Your task to perform on an android device: star an email in the gmail app Image 0: 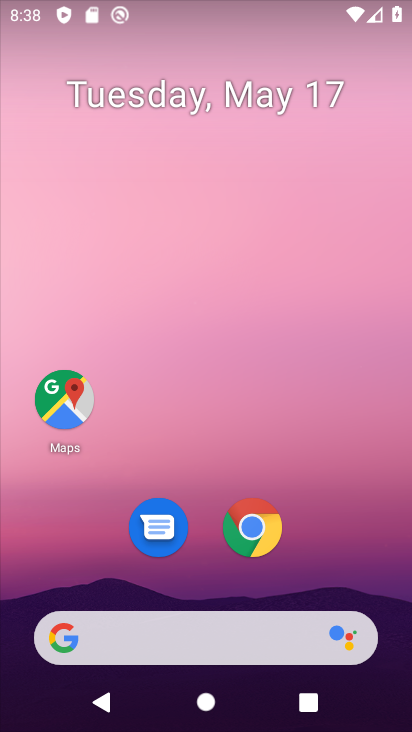
Step 0: drag from (341, 543) to (340, 6)
Your task to perform on an android device: star an email in the gmail app Image 1: 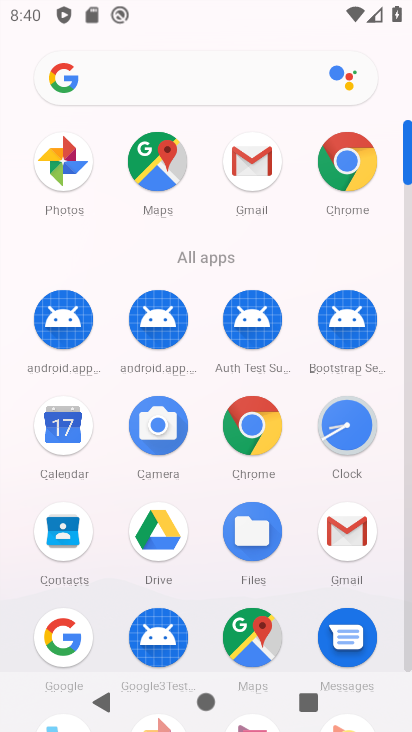
Step 1: click (347, 547)
Your task to perform on an android device: star an email in the gmail app Image 2: 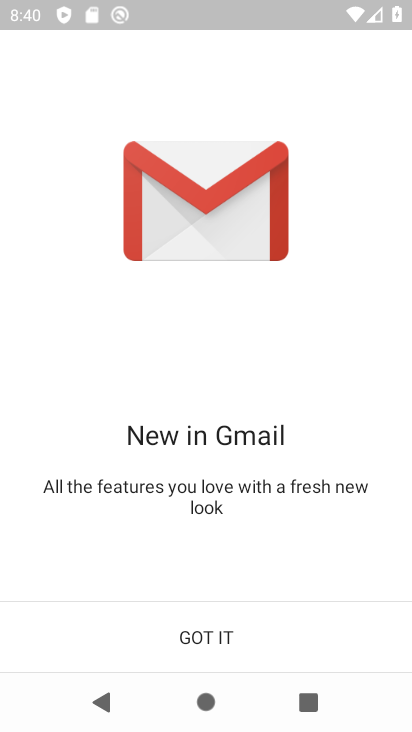
Step 2: click (213, 624)
Your task to perform on an android device: star an email in the gmail app Image 3: 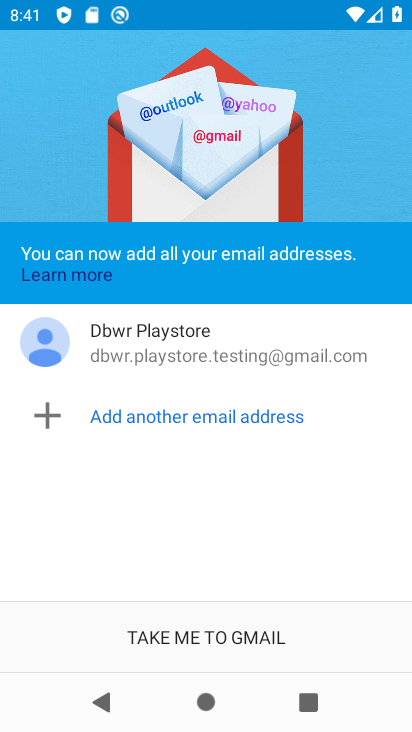
Step 3: click (213, 624)
Your task to perform on an android device: star an email in the gmail app Image 4: 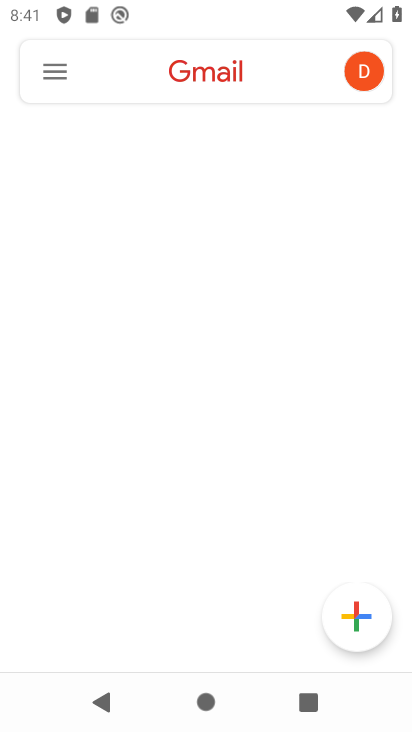
Step 4: click (213, 624)
Your task to perform on an android device: star an email in the gmail app Image 5: 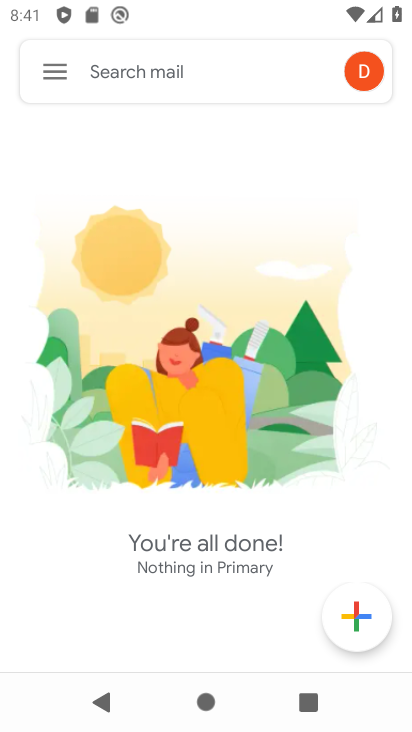
Step 5: click (65, 70)
Your task to perform on an android device: star an email in the gmail app Image 6: 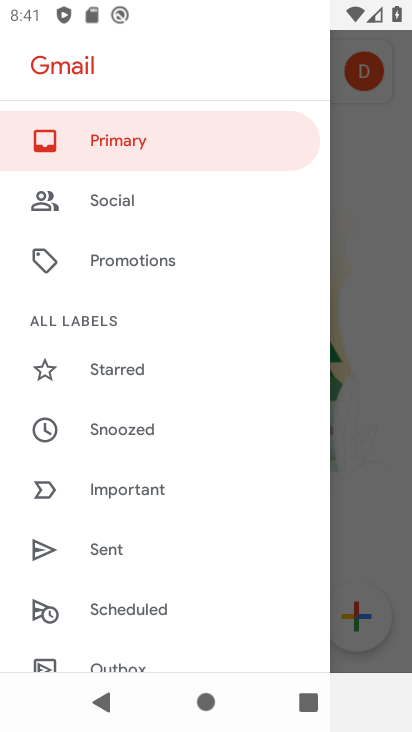
Step 6: task complete